Your task to perform on an android device: Search for custom wallets on etsy. Image 0: 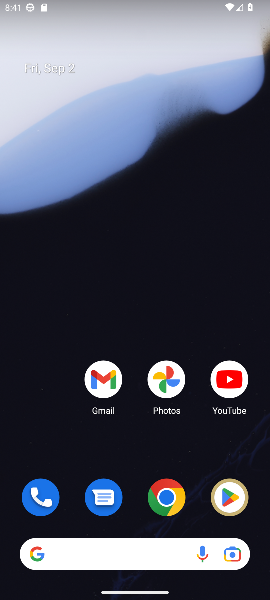
Step 0: drag from (128, 445) to (138, 128)
Your task to perform on an android device: Search for custom wallets on etsy. Image 1: 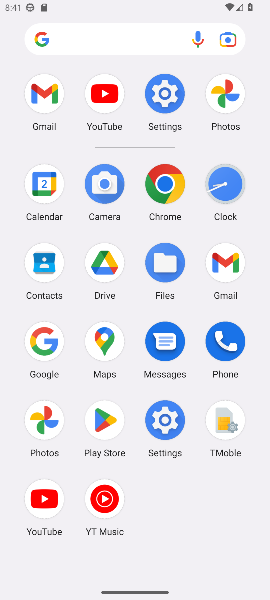
Step 1: click (32, 343)
Your task to perform on an android device: Search for custom wallets on etsy. Image 2: 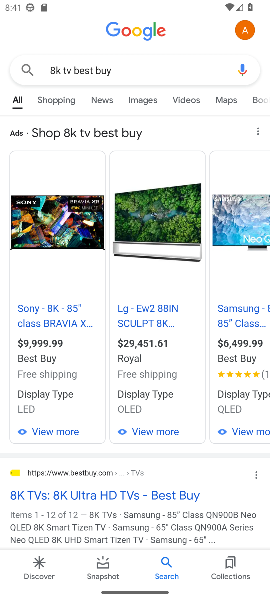
Step 2: click (193, 70)
Your task to perform on an android device: Search for custom wallets on etsy. Image 3: 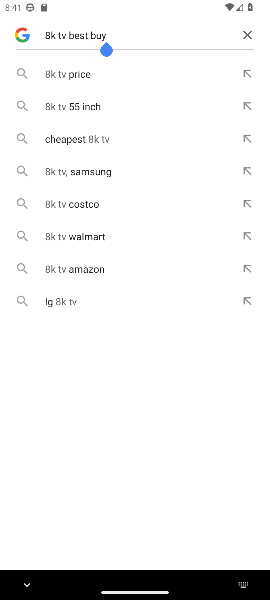
Step 3: click (246, 31)
Your task to perform on an android device: Search for custom wallets on etsy. Image 4: 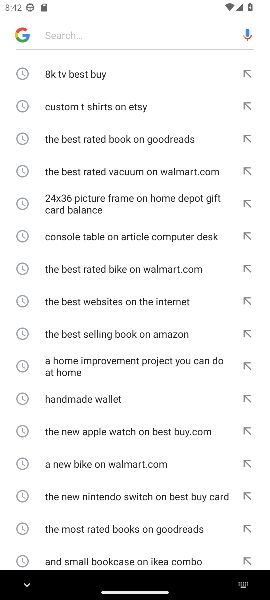
Step 4: type "custom wallets on etsy."
Your task to perform on an android device: Search for custom wallets on etsy. Image 5: 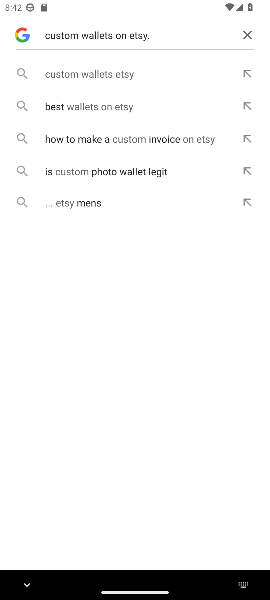
Step 5: click (110, 73)
Your task to perform on an android device: Search for custom wallets on etsy. Image 6: 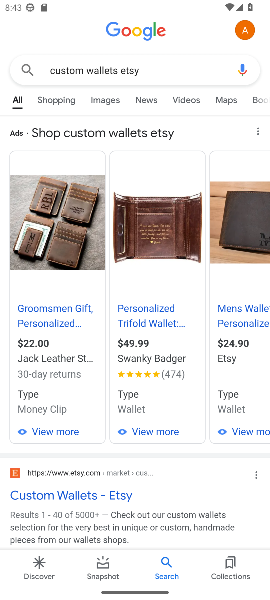
Step 6: task complete